Your task to perform on an android device: Do I have any events this weekend? Image 0: 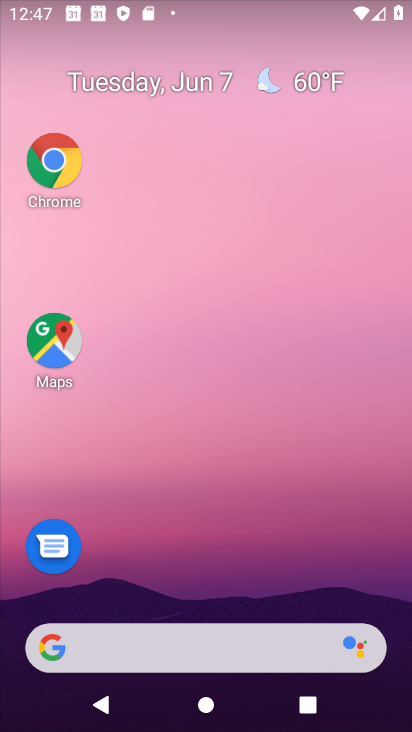
Step 0: drag from (168, 568) to (258, 108)
Your task to perform on an android device: Do I have any events this weekend? Image 1: 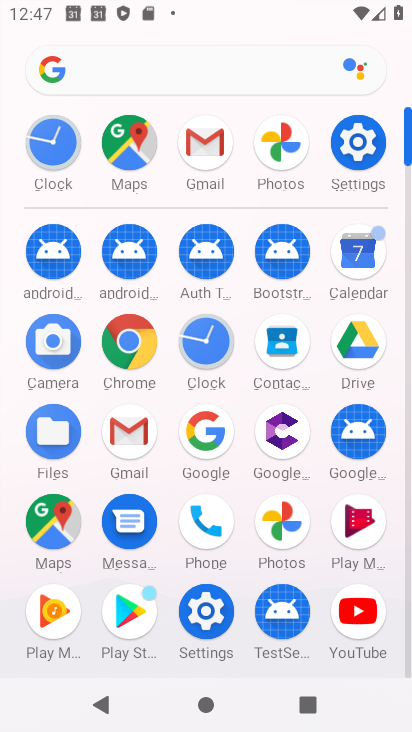
Step 1: click (351, 250)
Your task to perform on an android device: Do I have any events this weekend? Image 2: 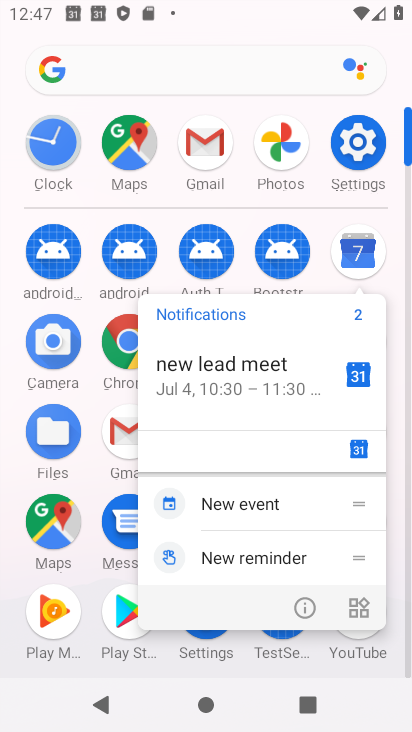
Step 2: click (404, 107)
Your task to perform on an android device: Do I have any events this weekend? Image 3: 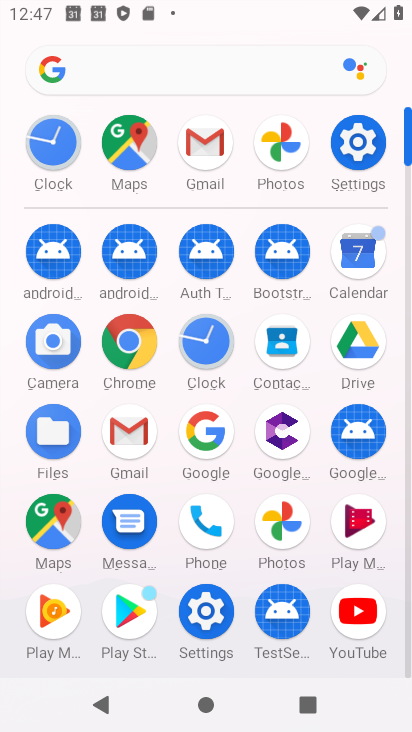
Step 3: click (401, 105)
Your task to perform on an android device: Do I have any events this weekend? Image 4: 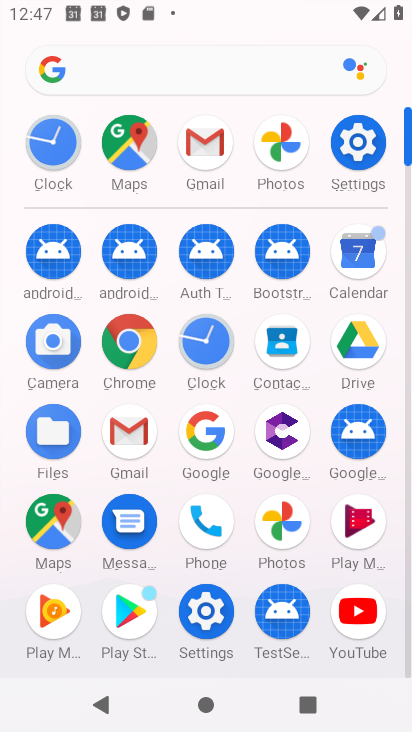
Step 4: click (353, 252)
Your task to perform on an android device: Do I have any events this weekend? Image 5: 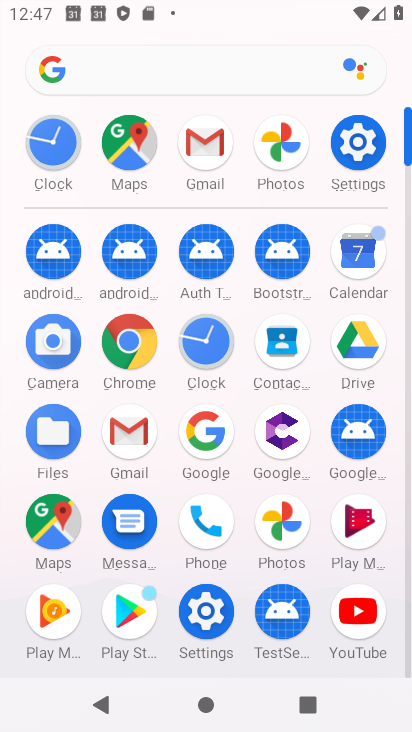
Step 5: click (353, 252)
Your task to perform on an android device: Do I have any events this weekend? Image 6: 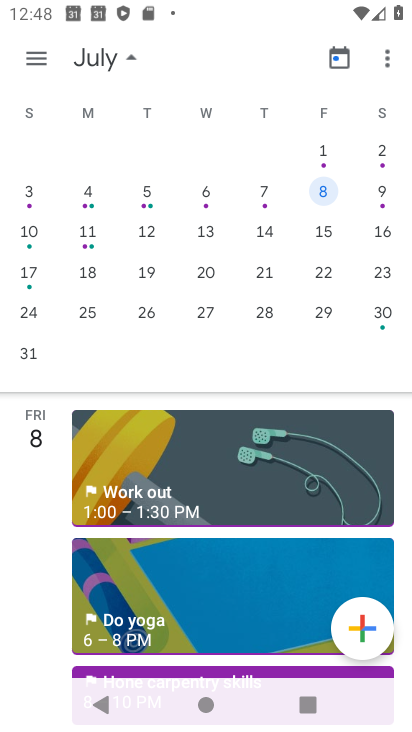
Step 6: drag from (56, 268) to (408, 193)
Your task to perform on an android device: Do I have any events this weekend? Image 7: 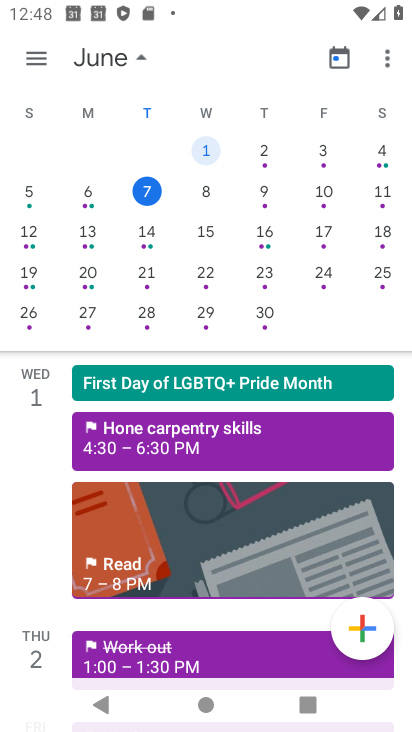
Step 7: click (380, 205)
Your task to perform on an android device: Do I have any events this weekend? Image 8: 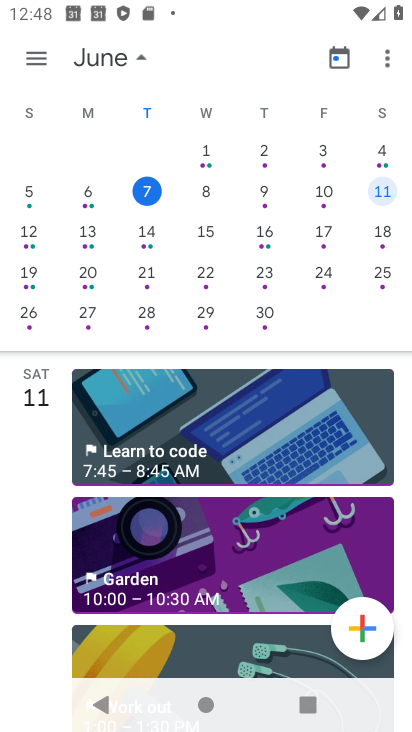
Step 8: task complete